Your task to perform on an android device: Search for sushi restaurants on Maps Image 0: 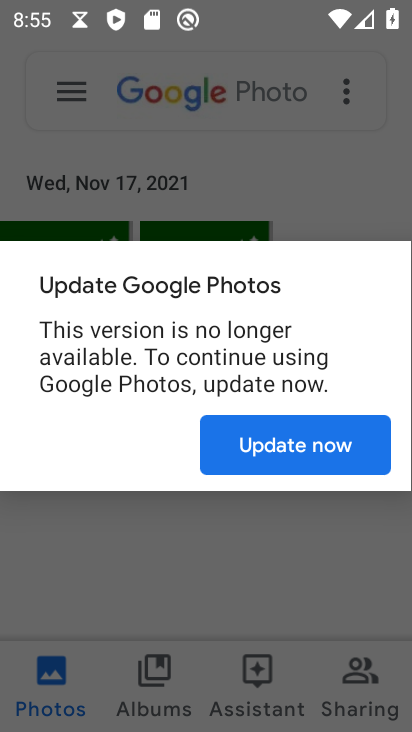
Step 0: press home button
Your task to perform on an android device: Search for sushi restaurants on Maps Image 1: 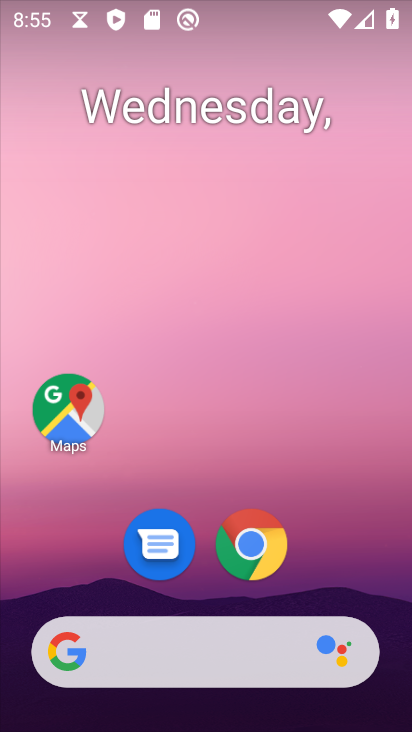
Step 1: drag from (204, 582) to (332, 33)
Your task to perform on an android device: Search for sushi restaurants on Maps Image 2: 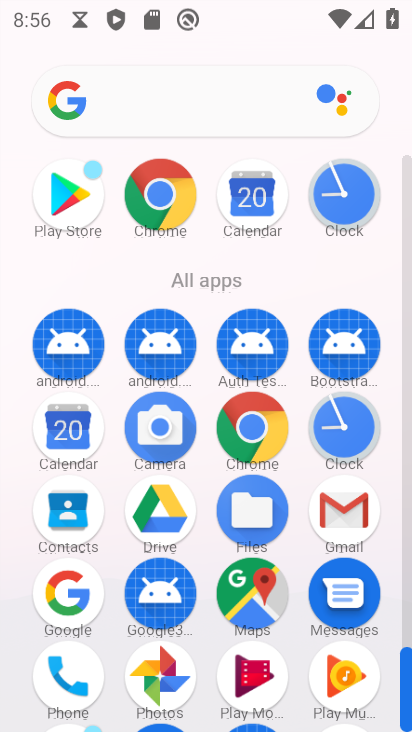
Step 2: click (250, 607)
Your task to perform on an android device: Search for sushi restaurants on Maps Image 3: 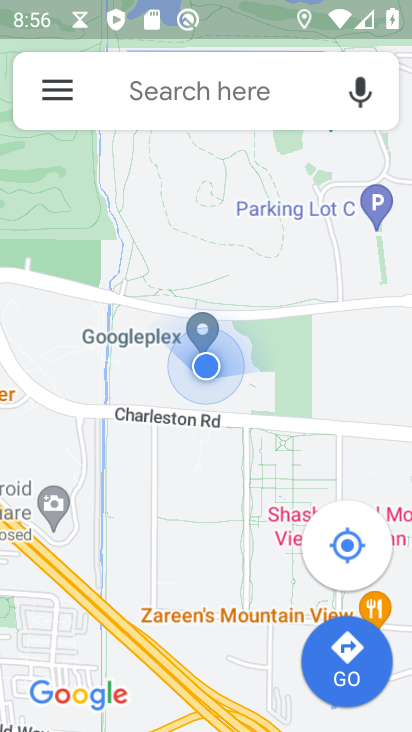
Step 3: click (162, 89)
Your task to perform on an android device: Search for sushi restaurants on Maps Image 4: 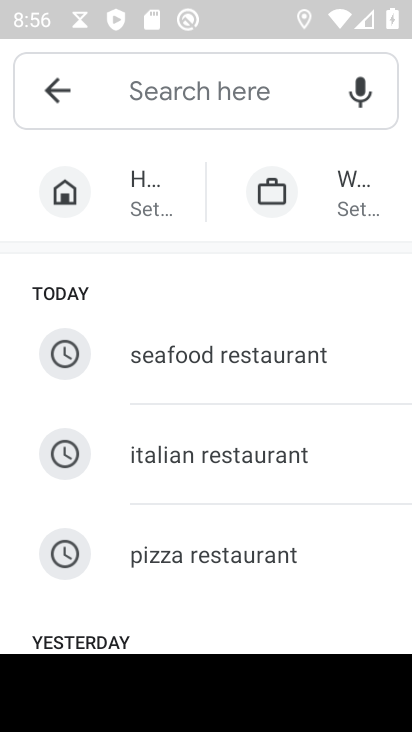
Step 4: drag from (207, 537) to (367, 107)
Your task to perform on an android device: Search for sushi restaurants on Maps Image 5: 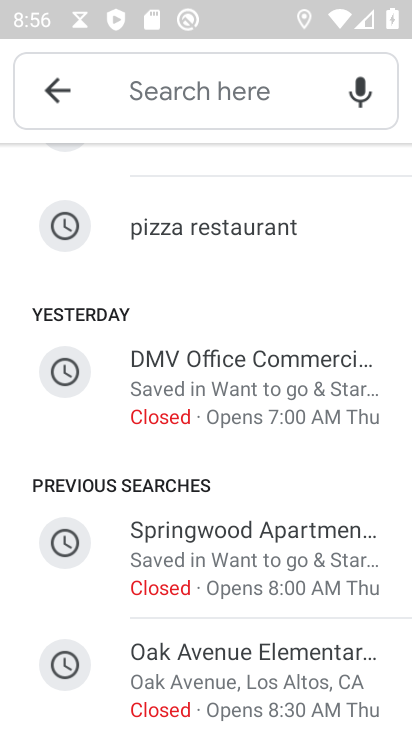
Step 5: click (150, 84)
Your task to perform on an android device: Search for sushi restaurants on Maps Image 6: 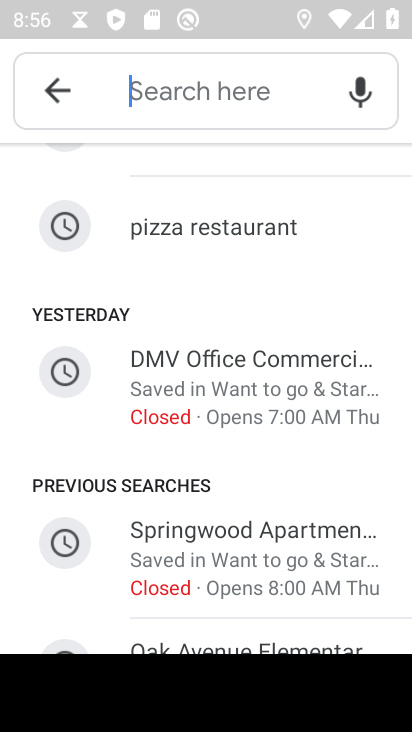
Step 6: type "sushi"
Your task to perform on an android device: Search for sushi restaurants on Maps Image 7: 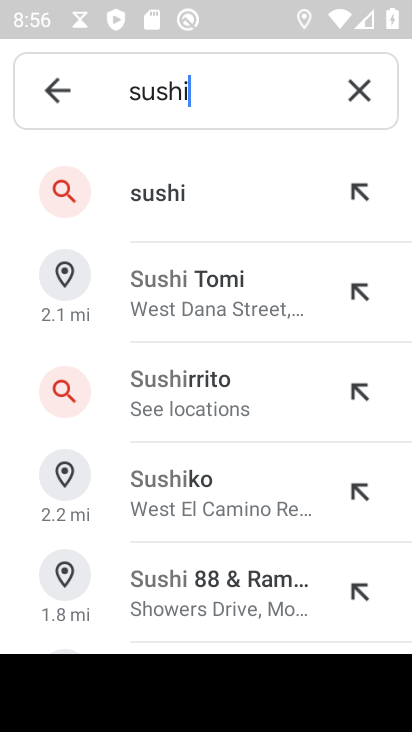
Step 7: click (173, 198)
Your task to perform on an android device: Search for sushi restaurants on Maps Image 8: 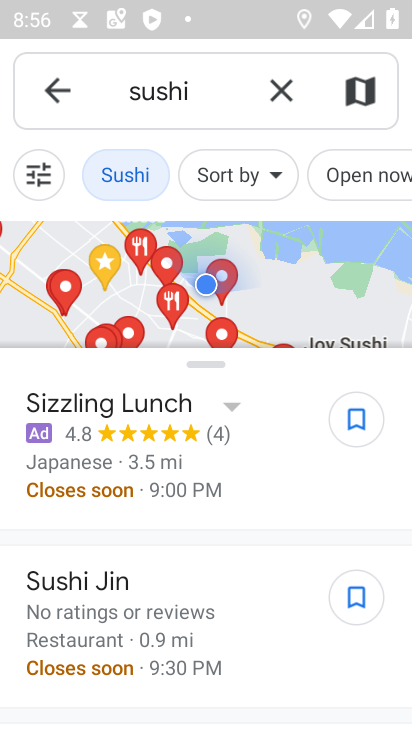
Step 8: task complete